Your task to perform on an android device: Find coffee shops on Maps Image 0: 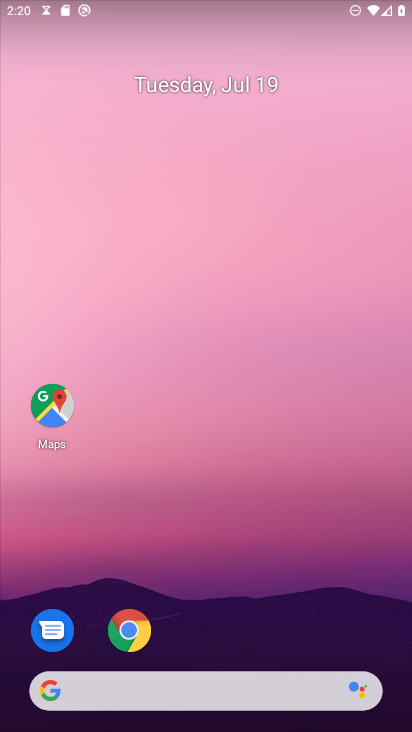
Step 0: press home button
Your task to perform on an android device: Find coffee shops on Maps Image 1: 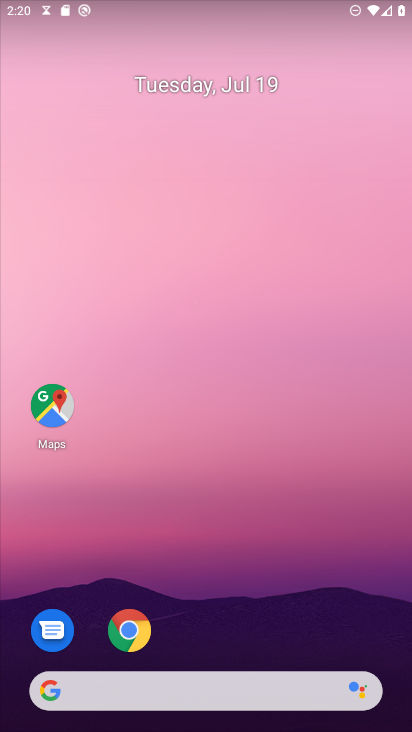
Step 1: click (52, 404)
Your task to perform on an android device: Find coffee shops on Maps Image 2: 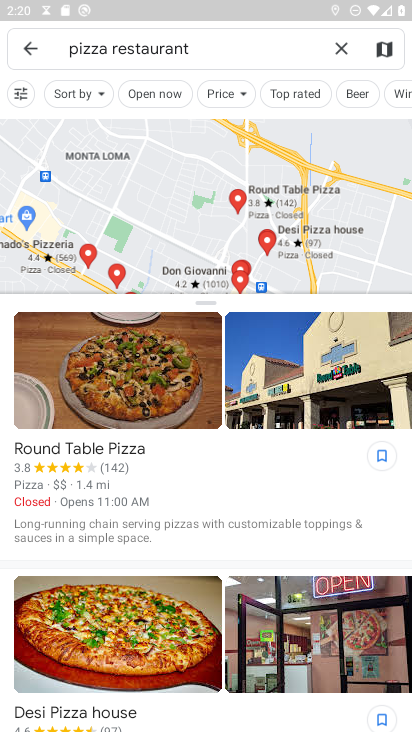
Step 2: click (338, 47)
Your task to perform on an android device: Find coffee shops on Maps Image 3: 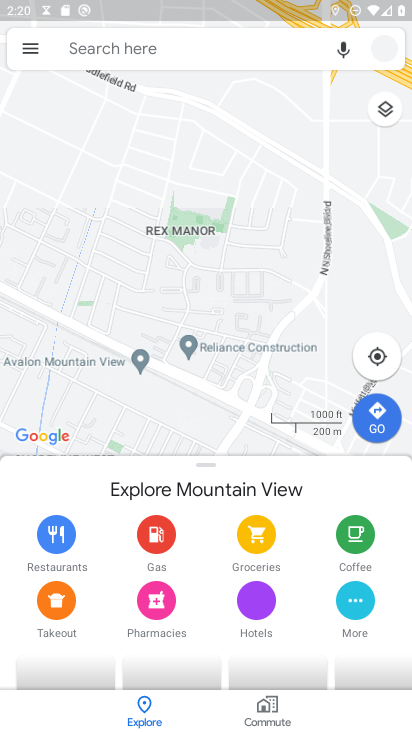
Step 3: click (167, 37)
Your task to perform on an android device: Find coffee shops on Maps Image 4: 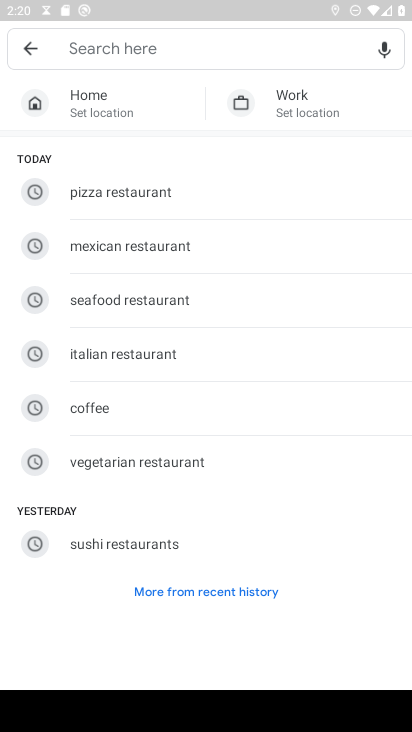
Step 4: click (102, 405)
Your task to perform on an android device: Find coffee shops on Maps Image 5: 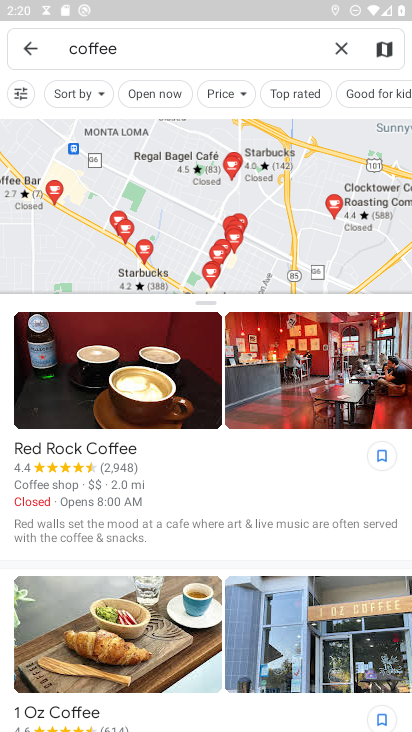
Step 5: task complete